Your task to perform on an android device: Find the nearest electronics store that's open today Image 0: 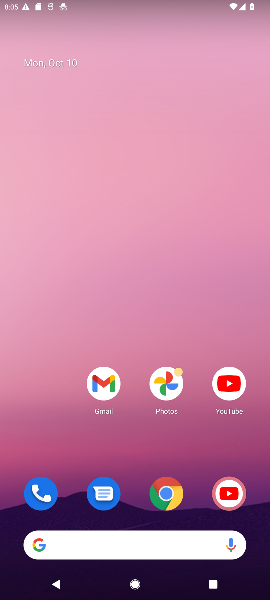
Step 0: drag from (128, 467) to (86, 21)
Your task to perform on an android device: Find the nearest electronics store that's open today Image 1: 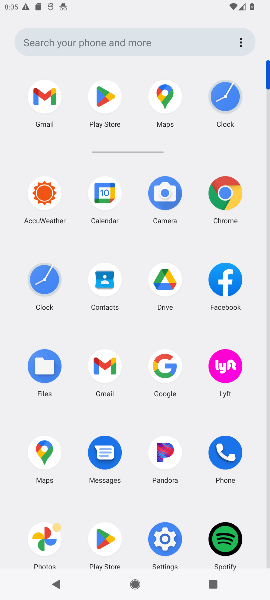
Step 1: click (50, 465)
Your task to perform on an android device: Find the nearest electronics store that's open today Image 2: 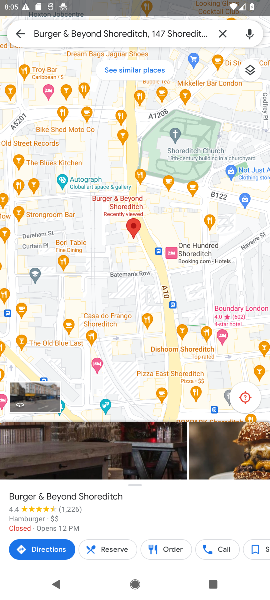
Step 2: click (218, 37)
Your task to perform on an android device: Find the nearest electronics store that's open today Image 3: 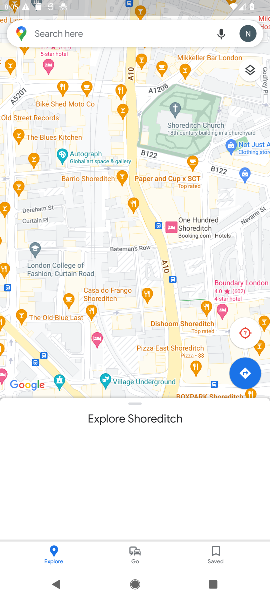
Step 3: click (115, 44)
Your task to perform on an android device: Find the nearest electronics store that's open today Image 4: 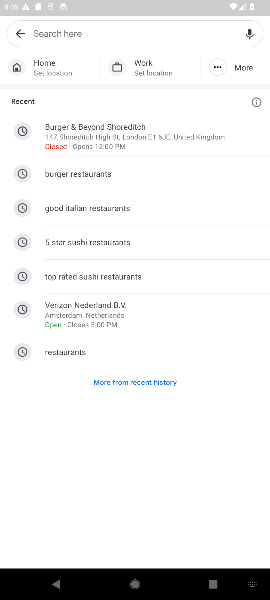
Step 4: type "Find the nearest electronics store that's open today"
Your task to perform on an android device: Find the nearest electronics store that's open today Image 5: 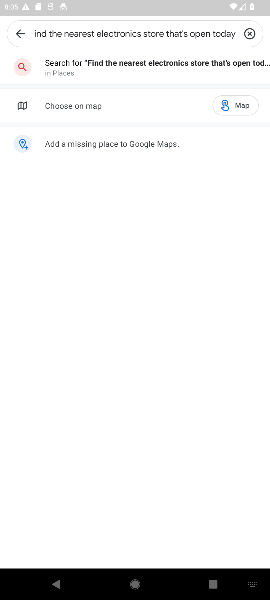
Step 5: click (89, 68)
Your task to perform on an android device: Find the nearest electronics store that's open today Image 6: 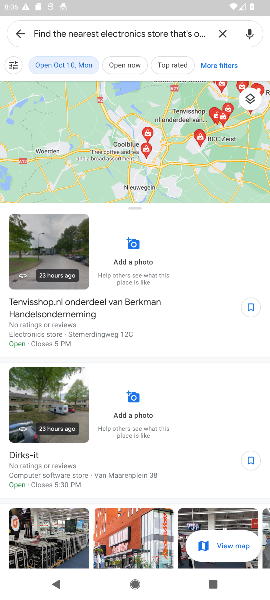
Step 6: task complete